Your task to perform on an android device: delete a single message in the gmail app Image 0: 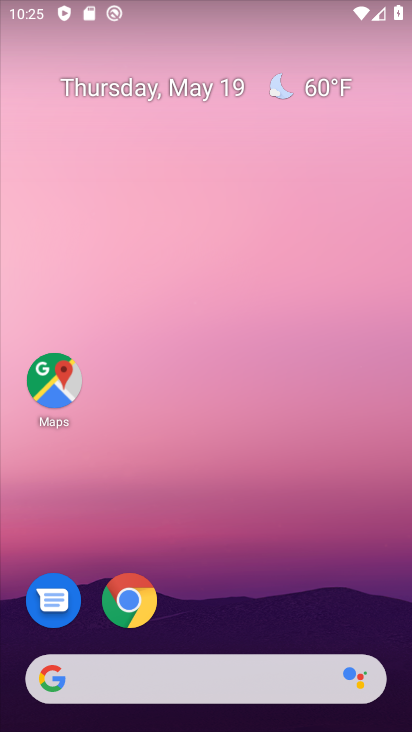
Step 0: drag from (358, 615) to (351, 177)
Your task to perform on an android device: delete a single message in the gmail app Image 1: 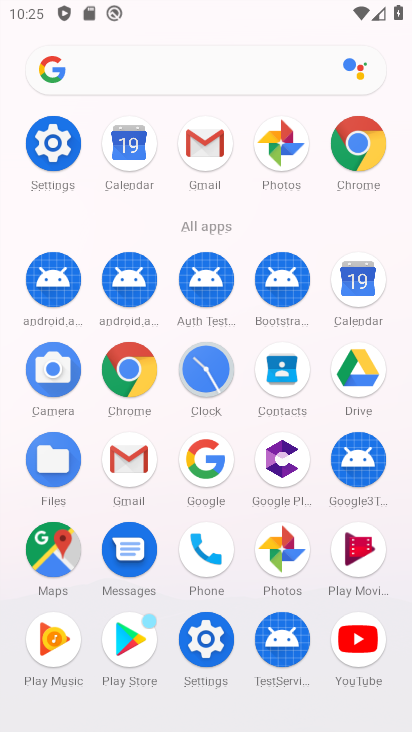
Step 1: click (136, 468)
Your task to perform on an android device: delete a single message in the gmail app Image 2: 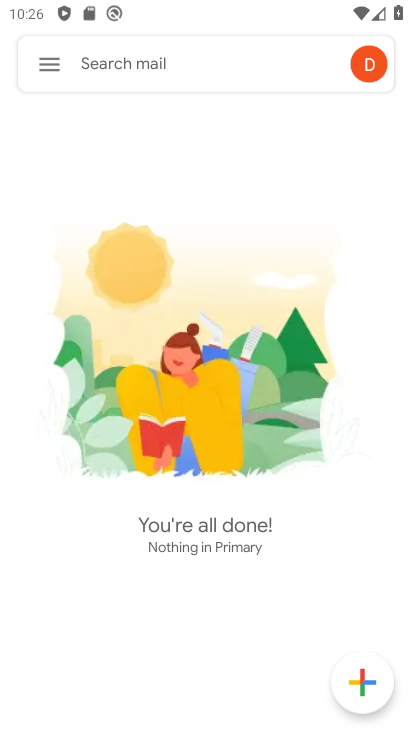
Step 2: task complete